Your task to perform on an android device: open chrome privacy settings Image 0: 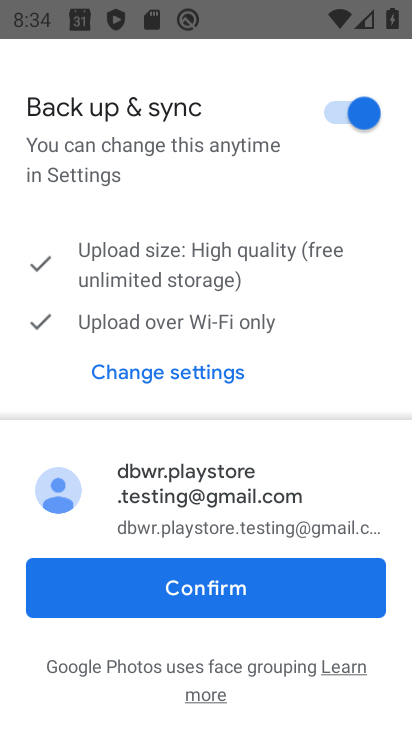
Step 0: click (272, 584)
Your task to perform on an android device: open chrome privacy settings Image 1: 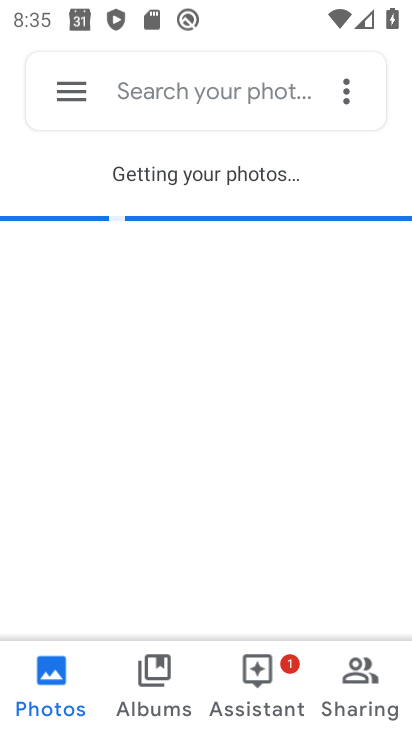
Step 1: press home button
Your task to perform on an android device: open chrome privacy settings Image 2: 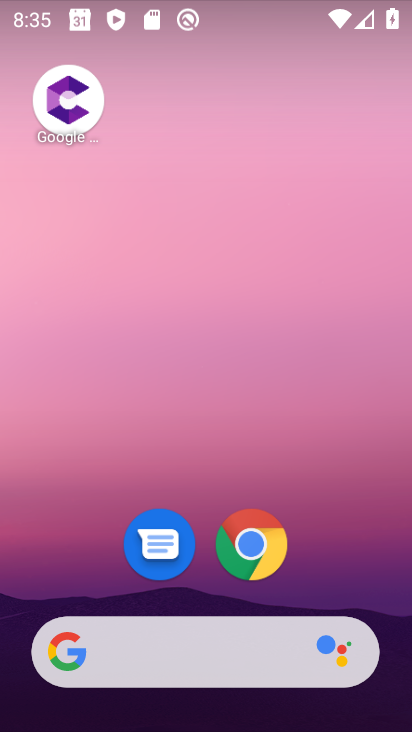
Step 2: click (259, 542)
Your task to perform on an android device: open chrome privacy settings Image 3: 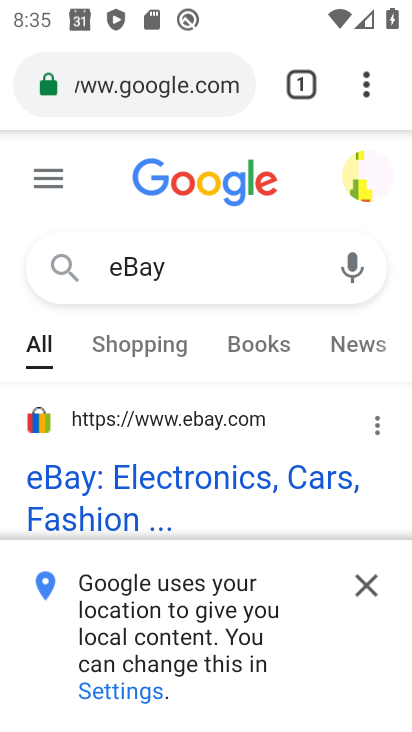
Step 3: click (368, 81)
Your task to perform on an android device: open chrome privacy settings Image 4: 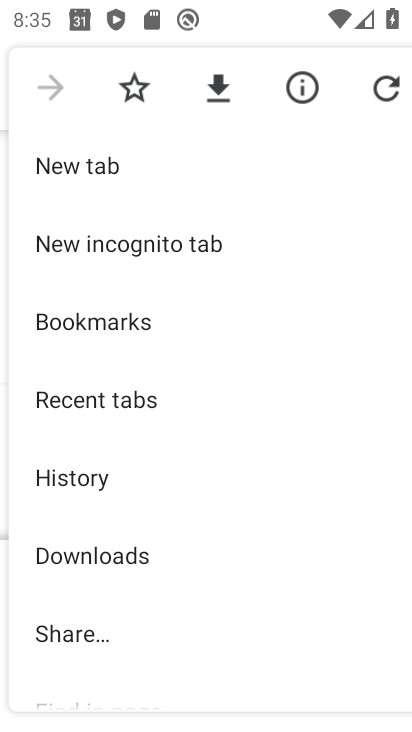
Step 4: drag from (234, 646) to (264, 362)
Your task to perform on an android device: open chrome privacy settings Image 5: 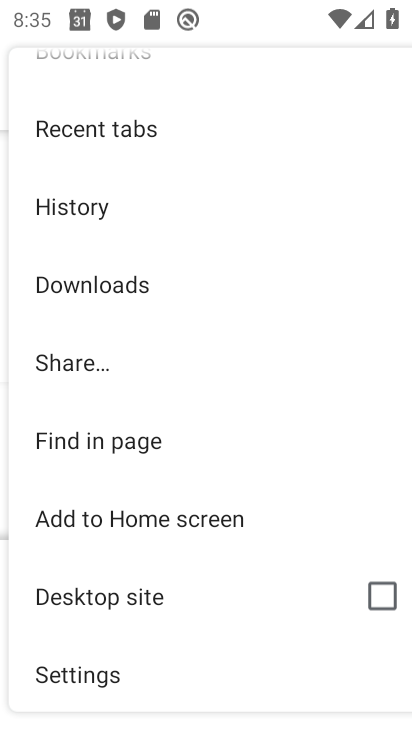
Step 5: drag from (239, 630) to (277, 329)
Your task to perform on an android device: open chrome privacy settings Image 6: 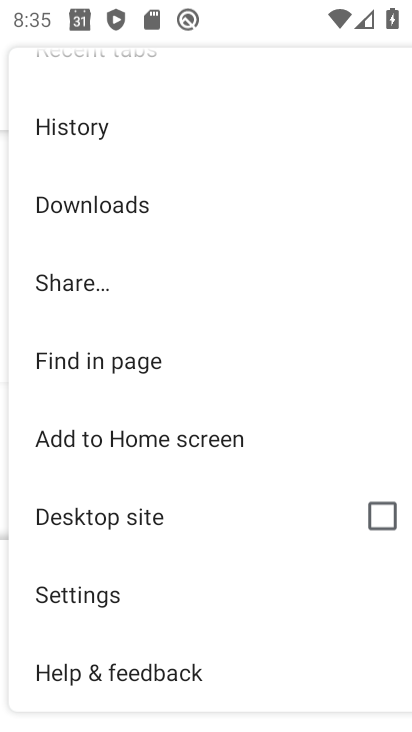
Step 6: drag from (254, 612) to (303, 309)
Your task to perform on an android device: open chrome privacy settings Image 7: 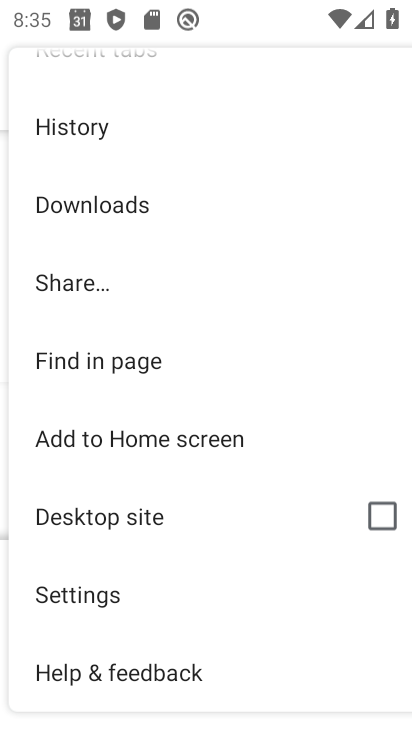
Step 7: click (82, 600)
Your task to perform on an android device: open chrome privacy settings Image 8: 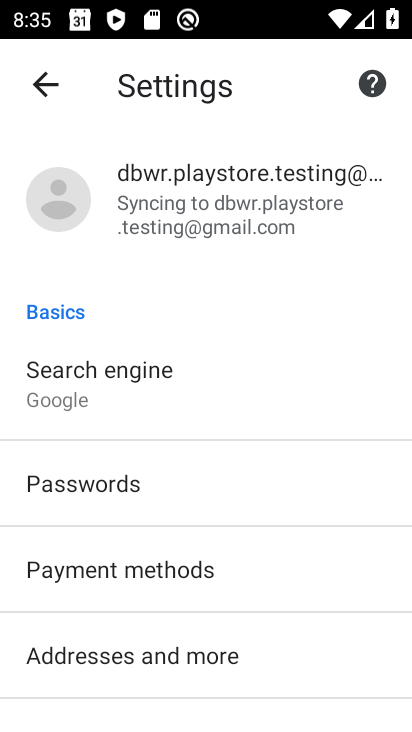
Step 8: drag from (290, 658) to (316, 322)
Your task to perform on an android device: open chrome privacy settings Image 9: 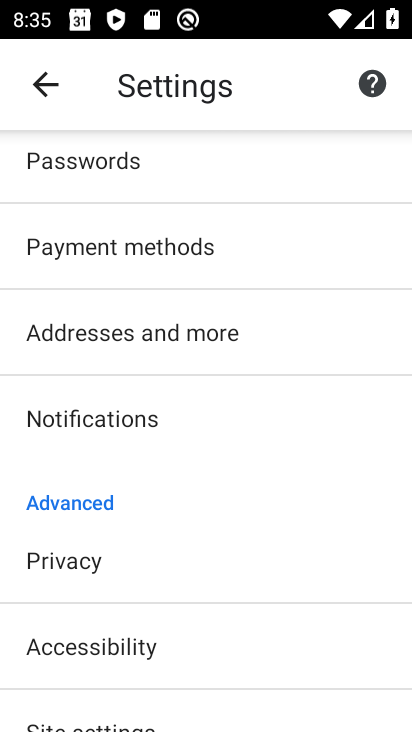
Step 9: click (47, 558)
Your task to perform on an android device: open chrome privacy settings Image 10: 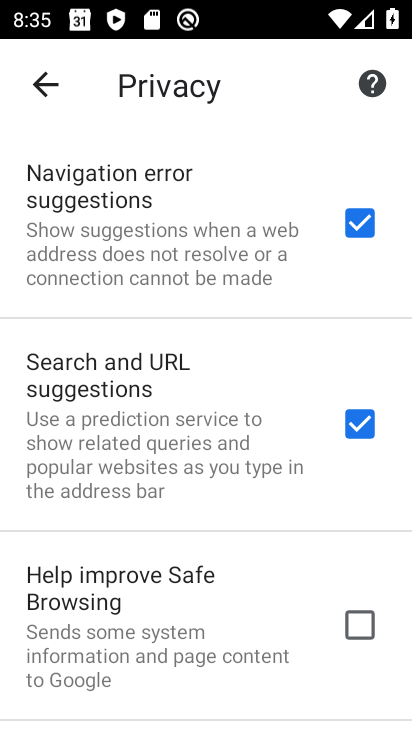
Step 10: task complete